Your task to perform on an android device: Open Google Chrome and open the bookmarks view Image 0: 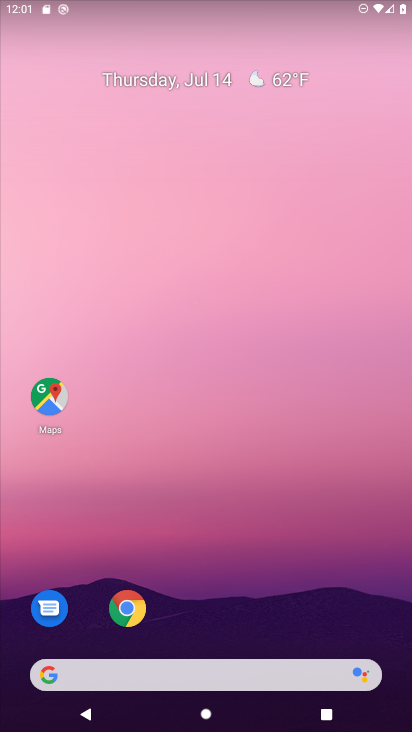
Step 0: click (127, 610)
Your task to perform on an android device: Open Google Chrome and open the bookmarks view Image 1: 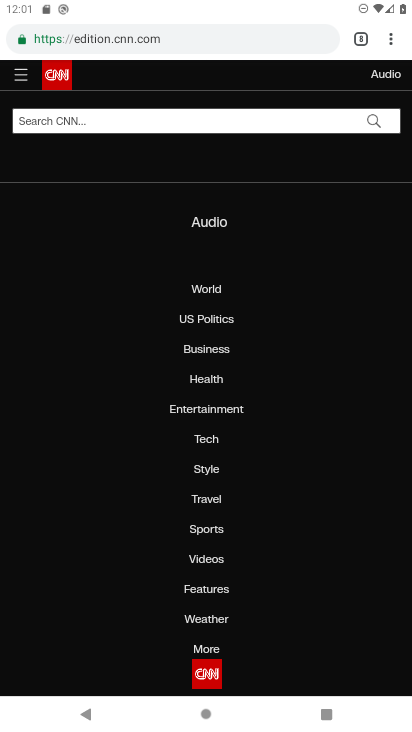
Step 1: click (389, 43)
Your task to perform on an android device: Open Google Chrome and open the bookmarks view Image 2: 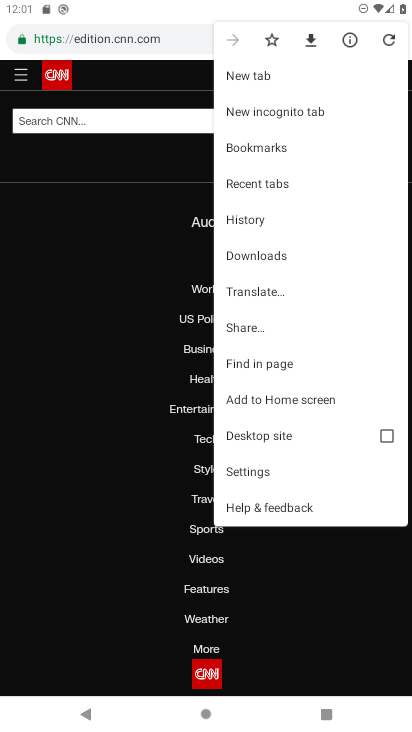
Step 2: click (267, 149)
Your task to perform on an android device: Open Google Chrome and open the bookmarks view Image 3: 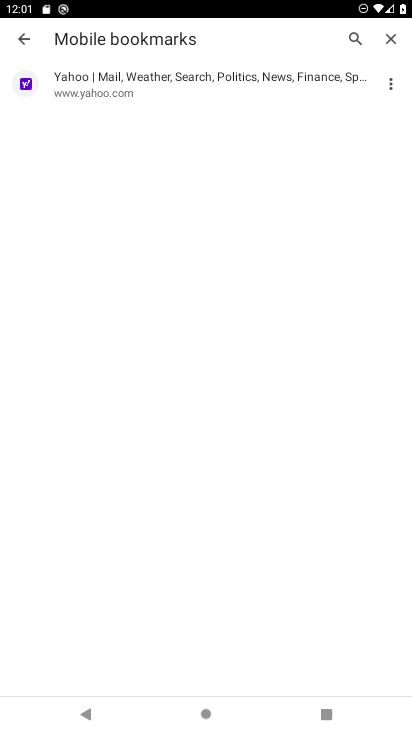
Step 3: task complete